Your task to perform on an android device: Search for sushi restaurants on Maps Image 0: 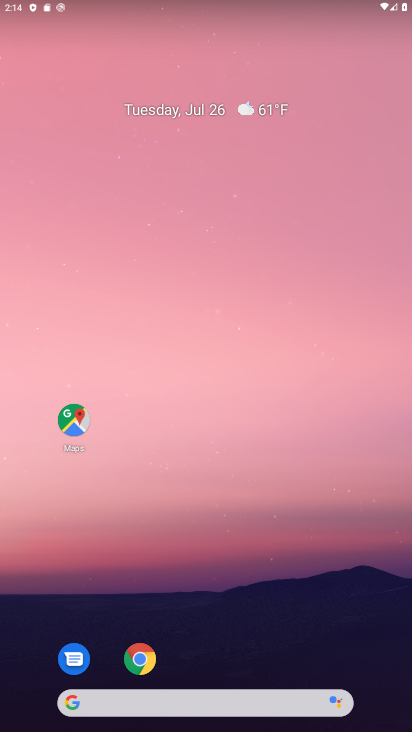
Step 0: click (75, 422)
Your task to perform on an android device: Search for sushi restaurants on Maps Image 1: 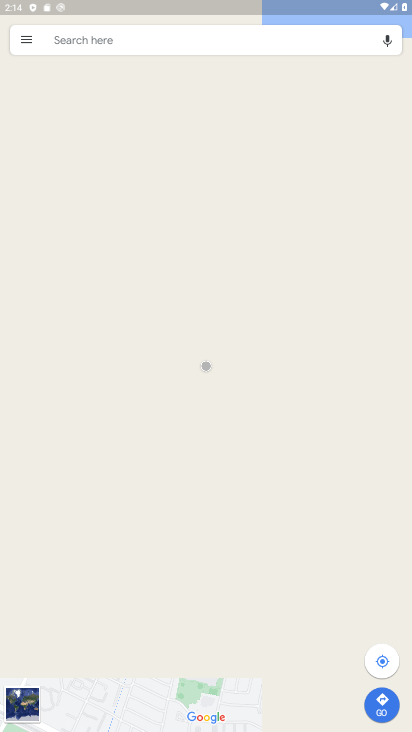
Step 1: click (185, 41)
Your task to perform on an android device: Search for sushi restaurants on Maps Image 2: 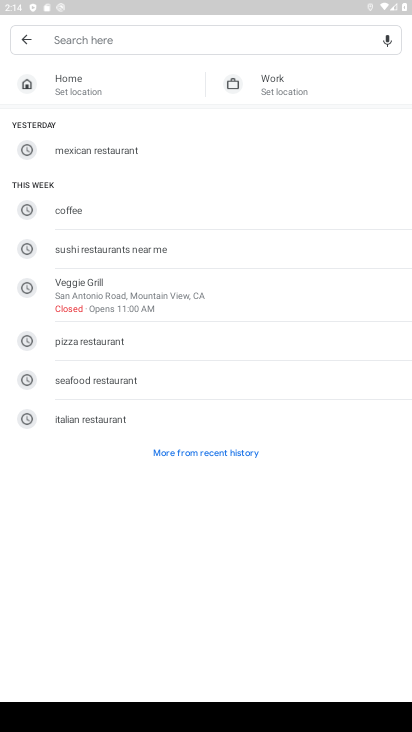
Step 2: type "sushi restaurants"
Your task to perform on an android device: Search for sushi restaurants on Maps Image 3: 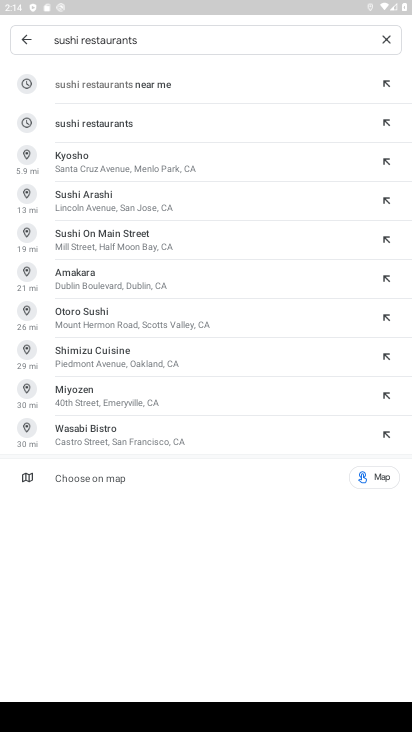
Step 3: click (91, 125)
Your task to perform on an android device: Search for sushi restaurants on Maps Image 4: 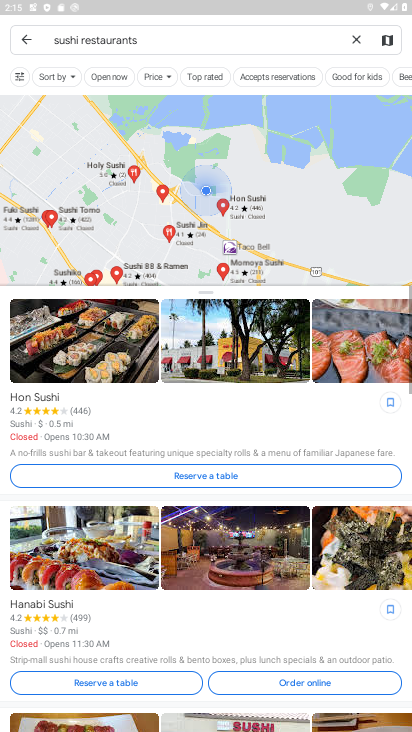
Step 4: task complete